Your task to perform on an android device: turn on javascript in the chrome app Image 0: 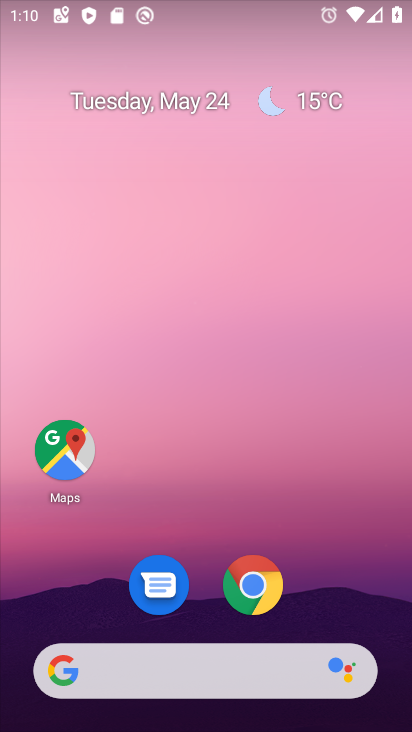
Step 0: click (257, 584)
Your task to perform on an android device: turn on javascript in the chrome app Image 1: 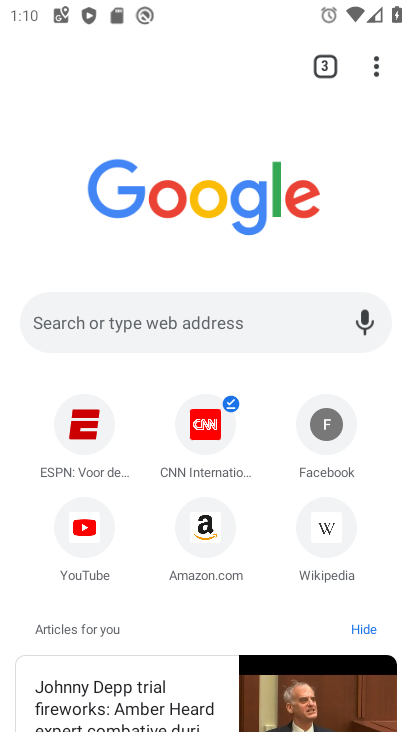
Step 1: click (377, 61)
Your task to perform on an android device: turn on javascript in the chrome app Image 2: 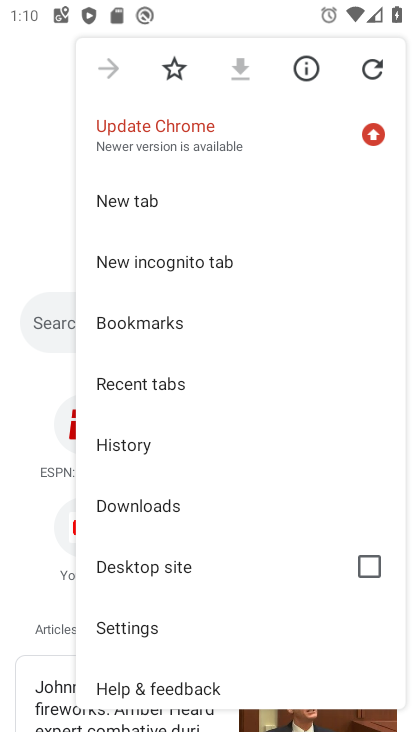
Step 2: click (178, 625)
Your task to perform on an android device: turn on javascript in the chrome app Image 3: 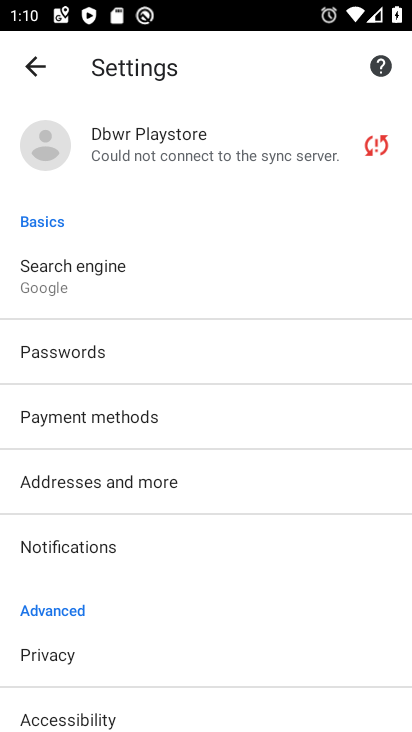
Step 3: drag from (178, 619) to (218, 321)
Your task to perform on an android device: turn on javascript in the chrome app Image 4: 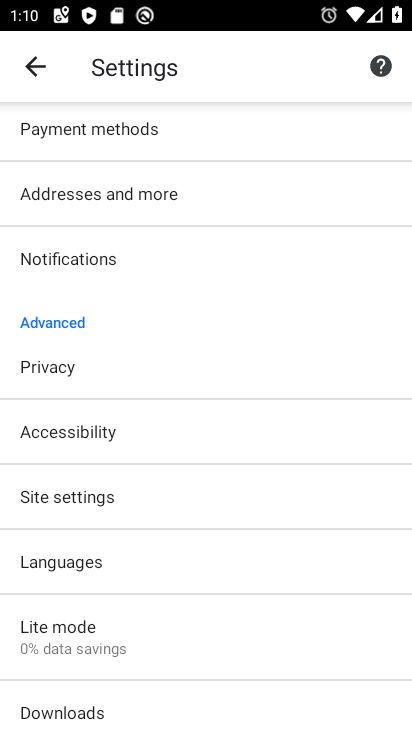
Step 4: click (182, 494)
Your task to perform on an android device: turn on javascript in the chrome app Image 5: 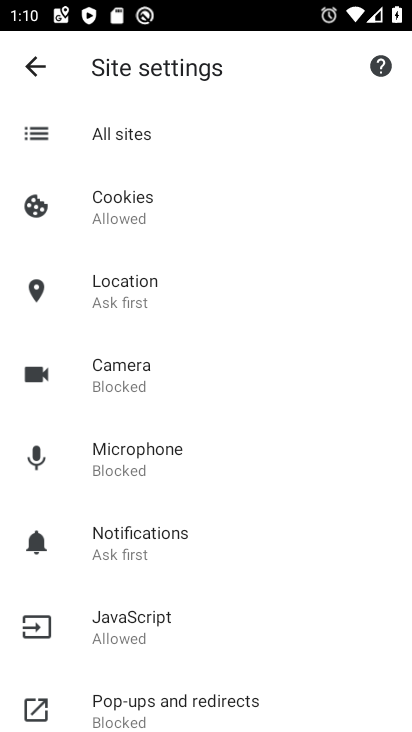
Step 5: click (172, 623)
Your task to perform on an android device: turn on javascript in the chrome app Image 6: 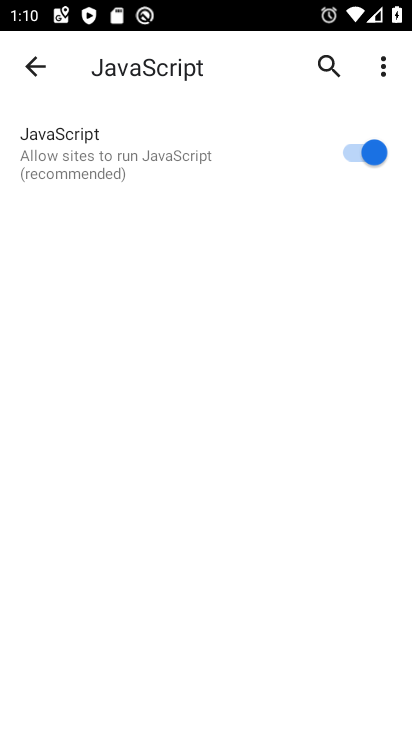
Step 6: task complete